Your task to perform on an android device: turn on sleep mode Image 0: 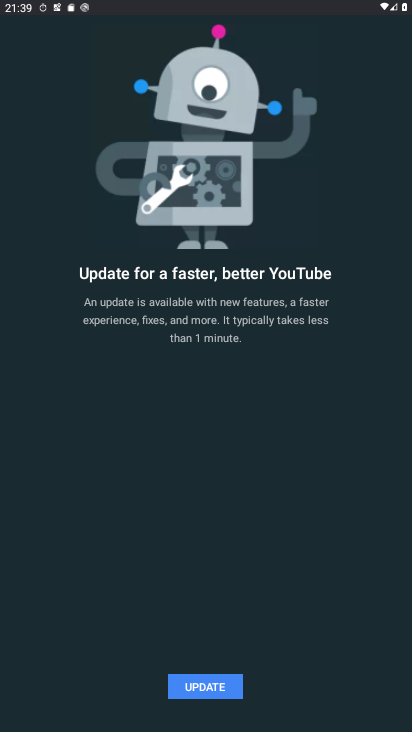
Step 0: press home button
Your task to perform on an android device: turn on sleep mode Image 1: 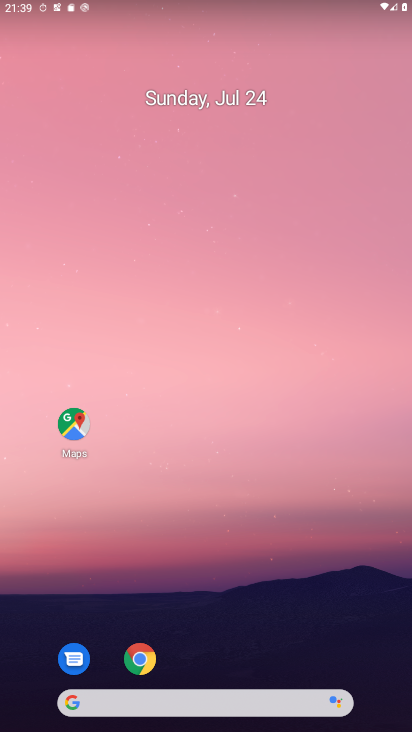
Step 1: drag from (197, 725) to (186, 140)
Your task to perform on an android device: turn on sleep mode Image 2: 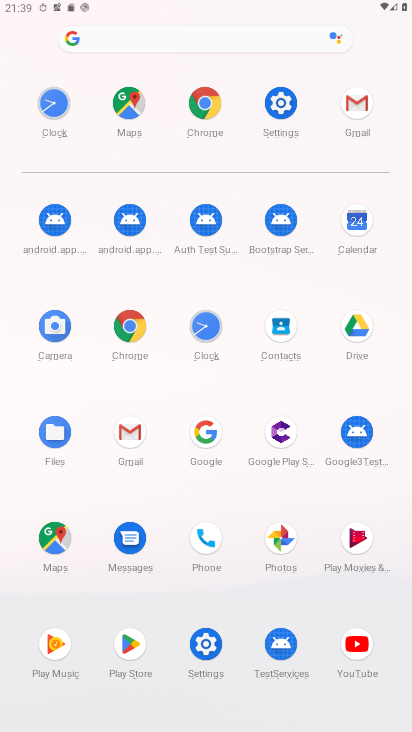
Step 2: click (282, 107)
Your task to perform on an android device: turn on sleep mode Image 3: 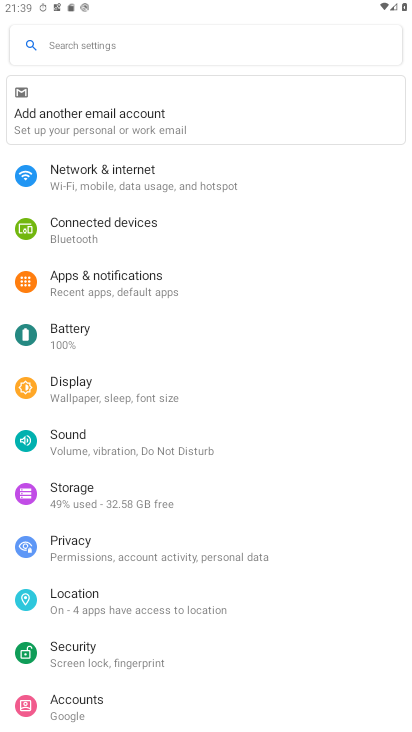
Step 3: click (109, 400)
Your task to perform on an android device: turn on sleep mode Image 4: 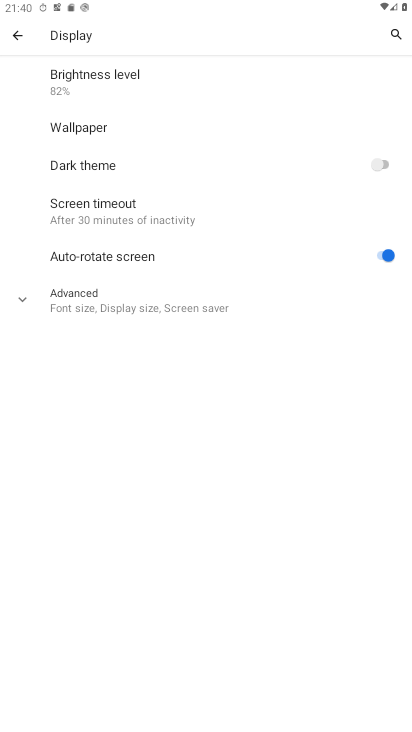
Step 4: click (98, 306)
Your task to perform on an android device: turn on sleep mode Image 5: 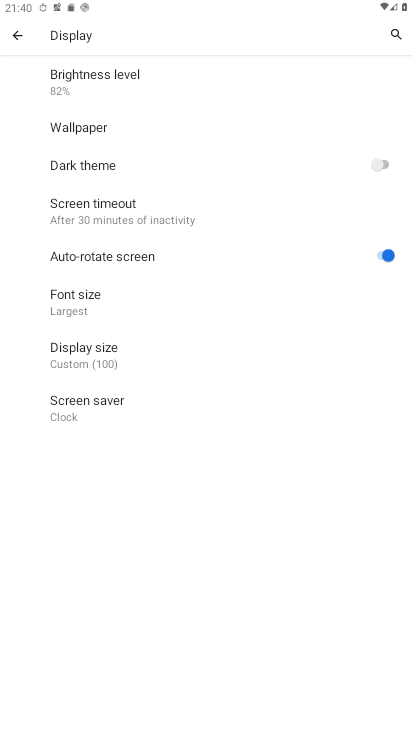
Step 5: task complete